Your task to perform on an android device: open app "Expedia: Hotels, Flights & Car" Image 0: 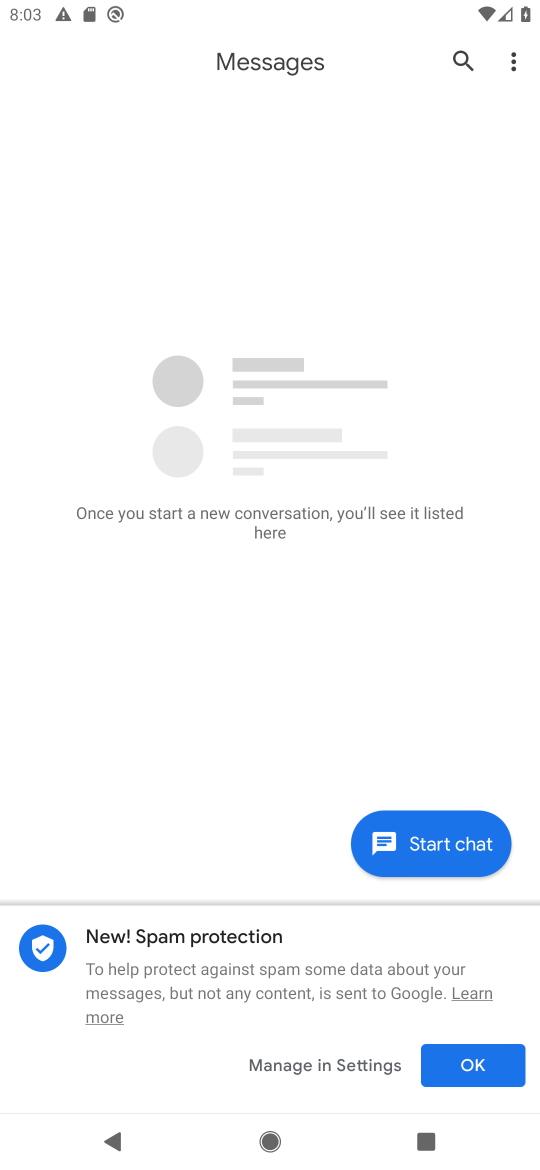
Step 0: press home button
Your task to perform on an android device: open app "Expedia: Hotels, Flights & Car" Image 1: 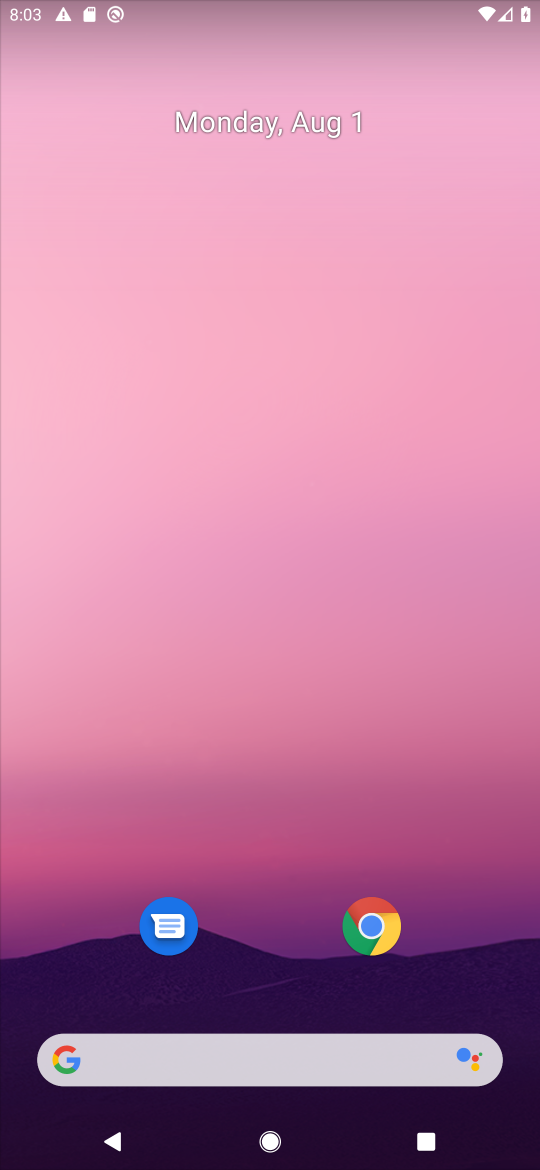
Step 1: drag from (287, 993) to (249, 249)
Your task to perform on an android device: open app "Expedia: Hotels, Flights & Car" Image 2: 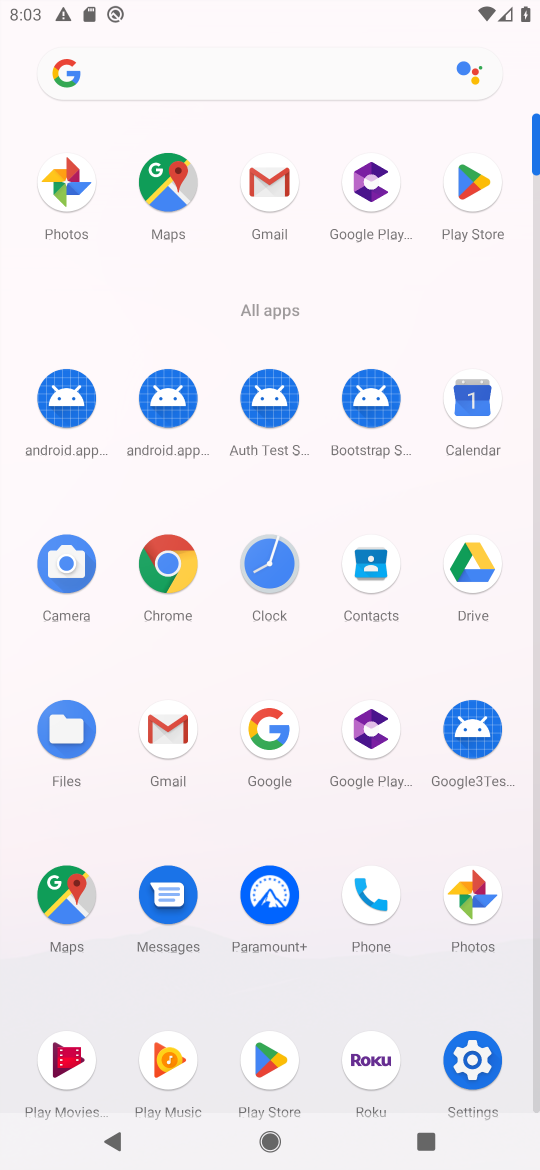
Step 2: click (263, 1049)
Your task to perform on an android device: open app "Expedia: Hotels, Flights & Car" Image 3: 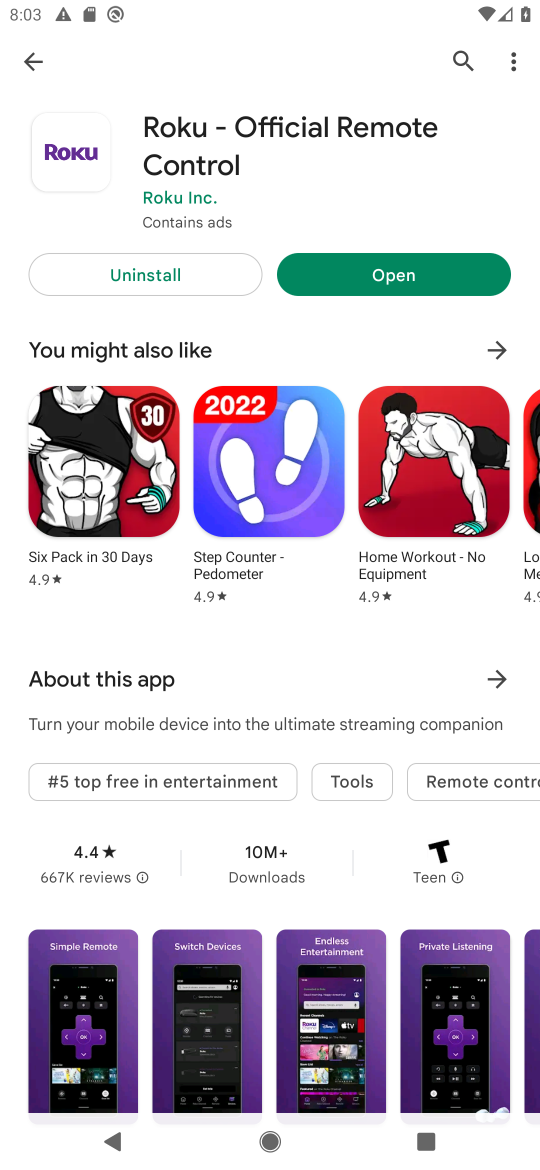
Step 3: click (459, 61)
Your task to perform on an android device: open app "Expedia: Hotels, Flights & Car" Image 4: 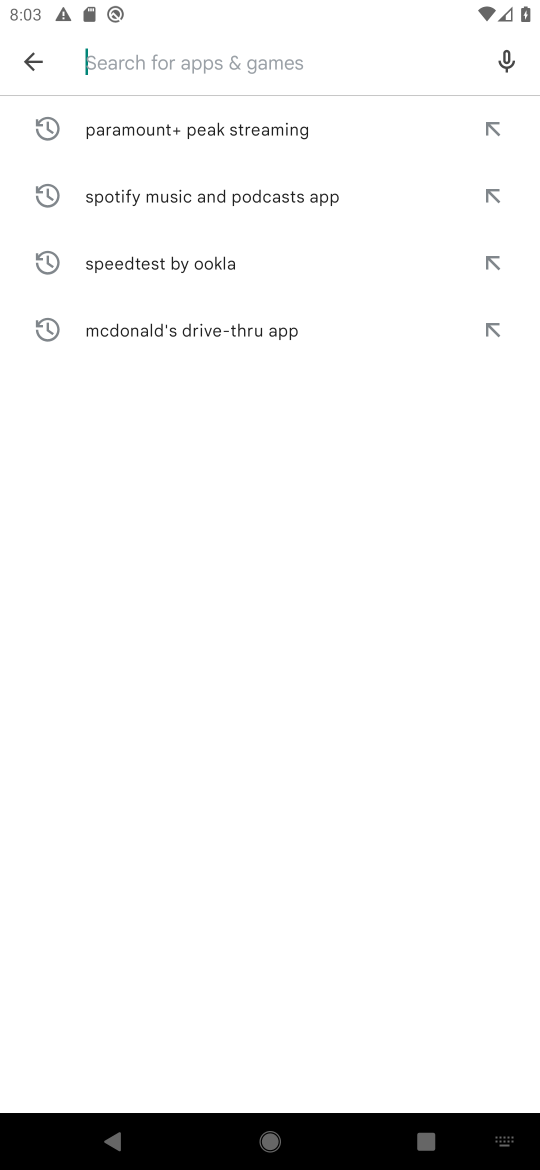
Step 4: type "Expedia: Hotels, Flights & Car"
Your task to perform on an android device: open app "Expedia: Hotels, Flights & Car" Image 5: 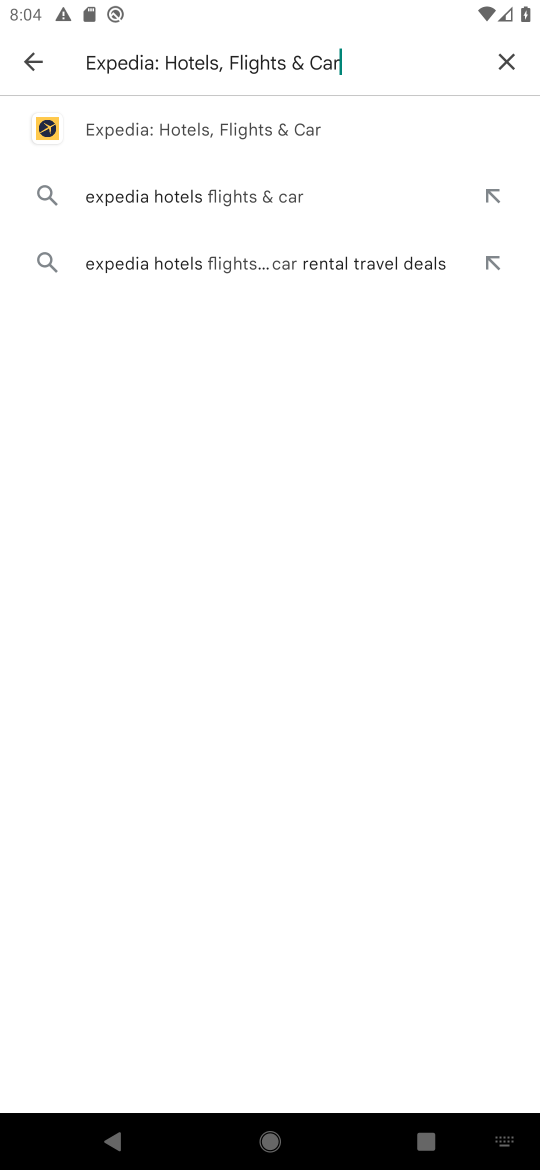
Step 5: click (321, 126)
Your task to perform on an android device: open app "Expedia: Hotels, Flights & Car" Image 6: 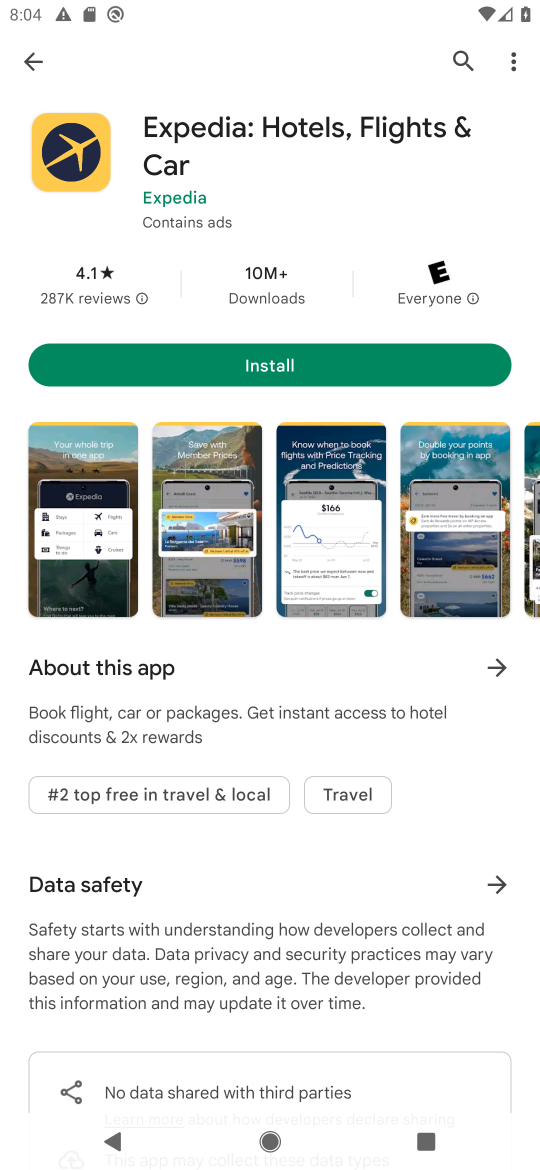
Step 6: click (304, 367)
Your task to perform on an android device: open app "Expedia: Hotels, Flights & Car" Image 7: 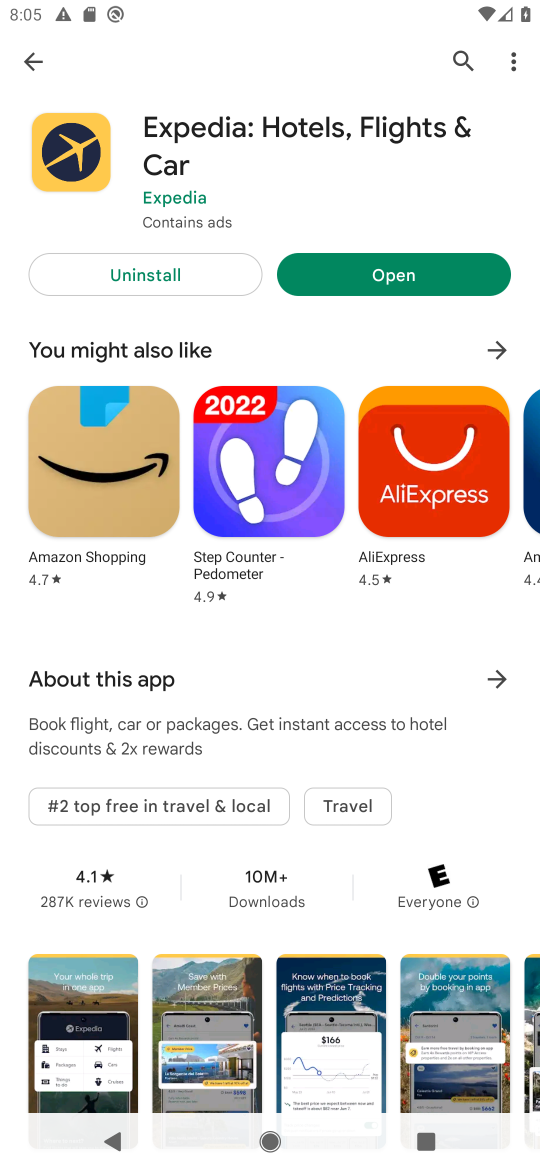
Step 7: click (396, 265)
Your task to perform on an android device: open app "Expedia: Hotels, Flights & Car" Image 8: 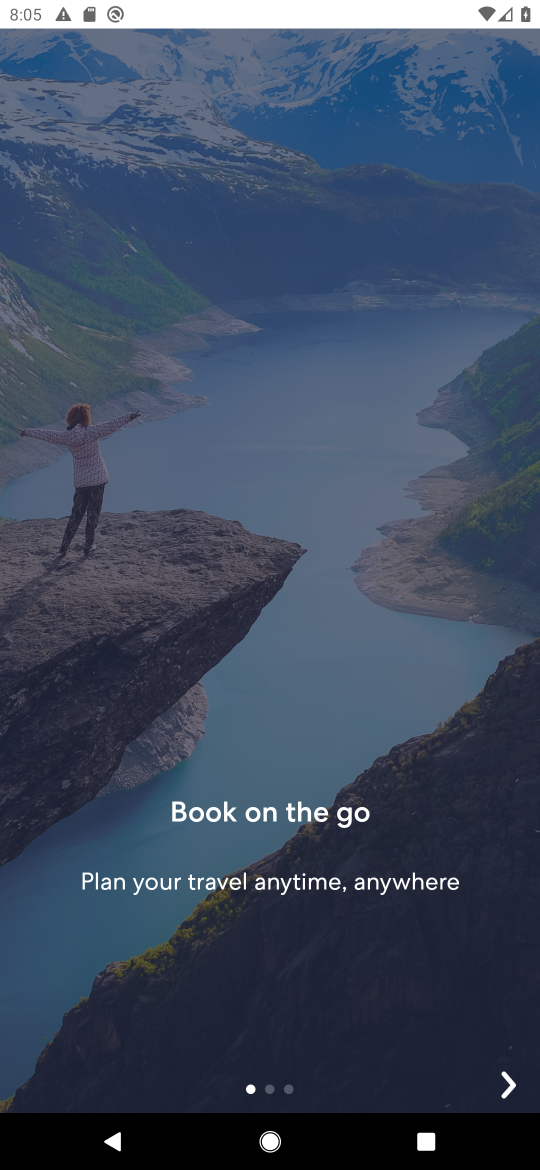
Step 8: click (505, 1082)
Your task to perform on an android device: open app "Expedia: Hotels, Flights & Car" Image 9: 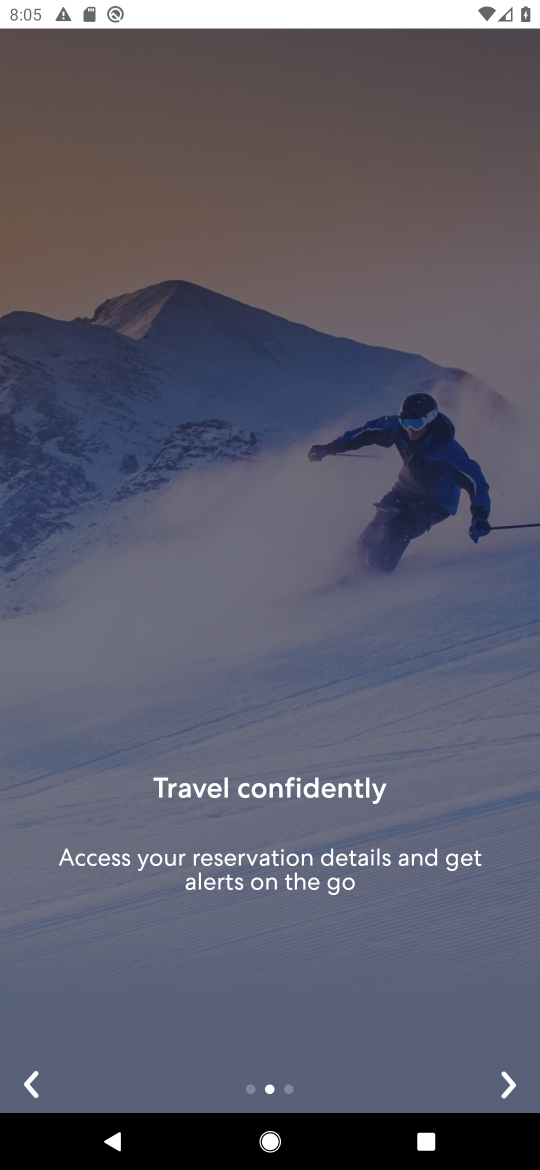
Step 9: click (501, 1081)
Your task to perform on an android device: open app "Expedia: Hotels, Flights & Car" Image 10: 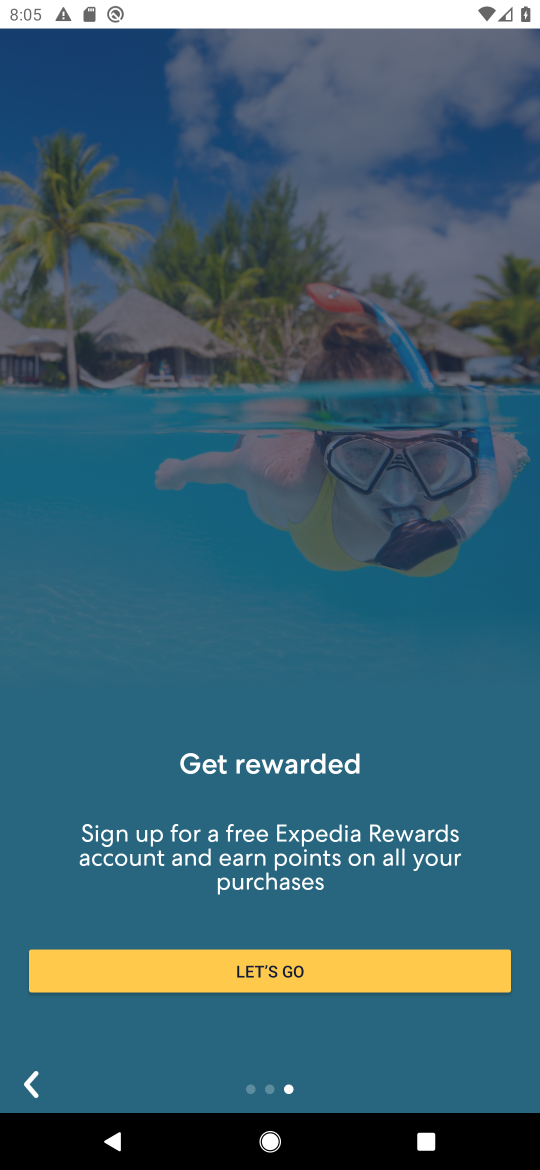
Step 10: click (265, 963)
Your task to perform on an android device: open app "Expedia: Hotels, Flights & Car" Image 11: 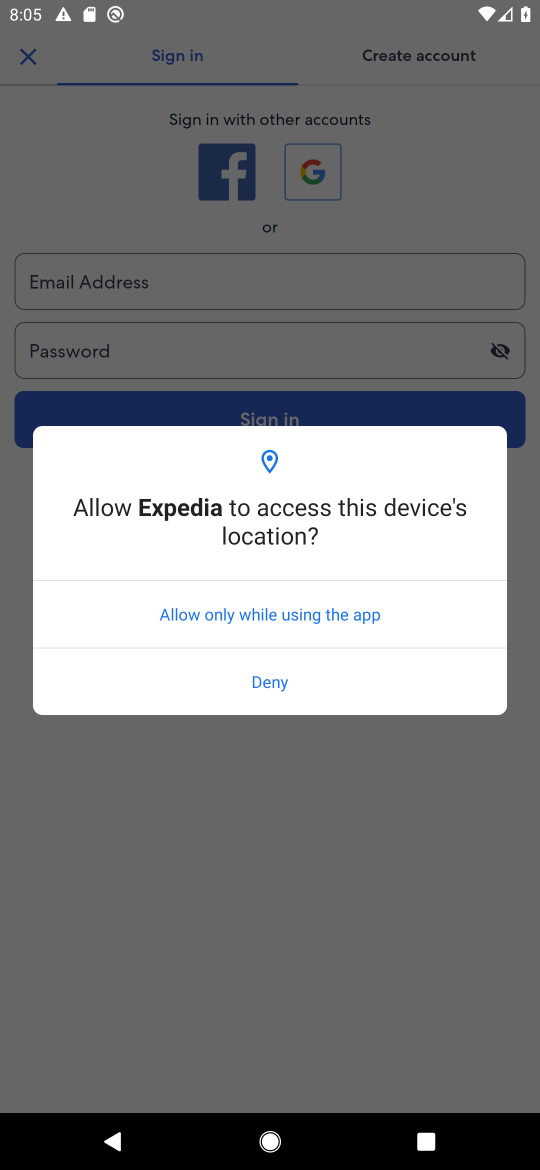
Step 11: click (267, 608)
Your task to perform on an android device: open app "Expedia: Hotels, Flights & Car" Image 12: 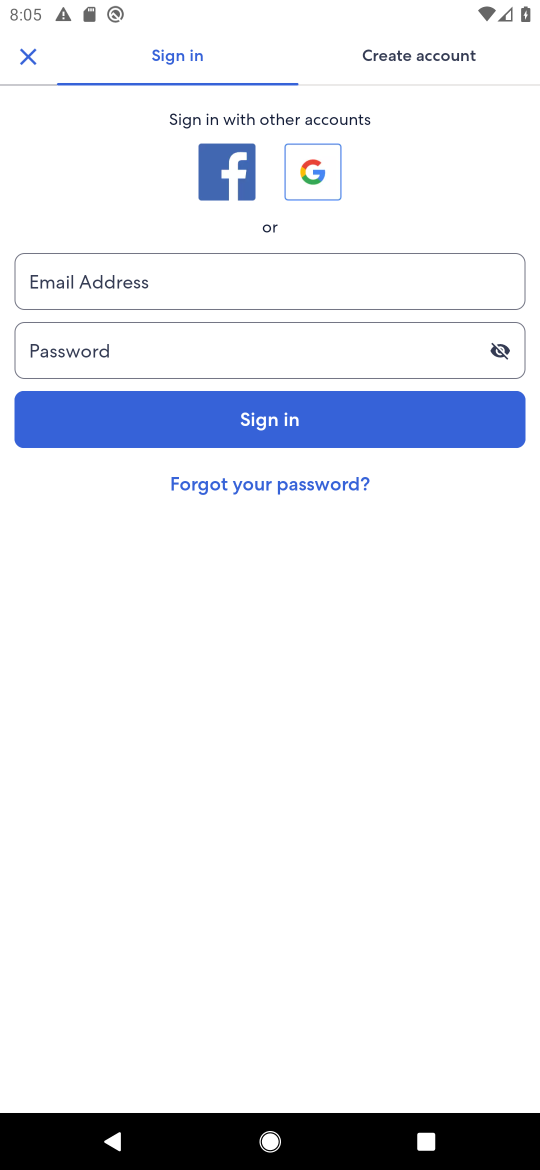
Step 12: task complete